Your task to perform on an android device: Open the web browser Image 0: 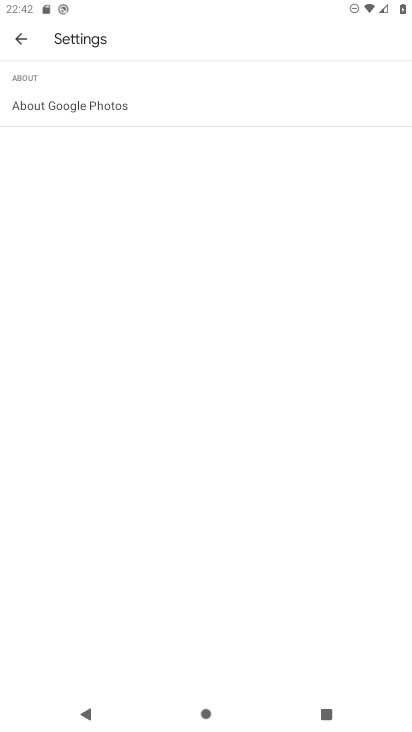
Step 0: press home button
Your task to perform on an android device: Open the web browser Image 1: 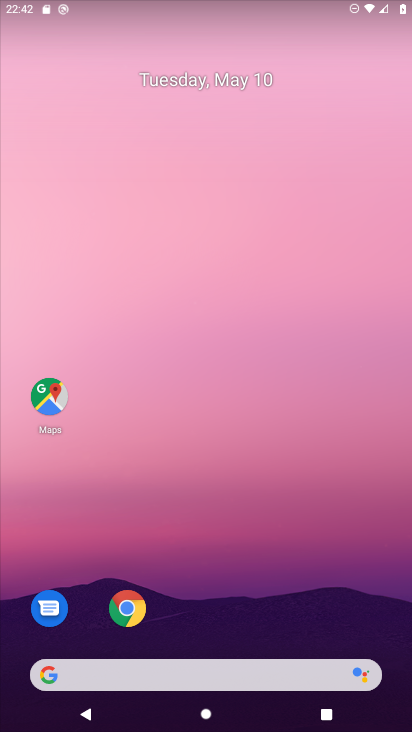
Step 1: drag from (228, 594) to (261, 249)
Your task to perform on an android device: Open the web browser Image 2: 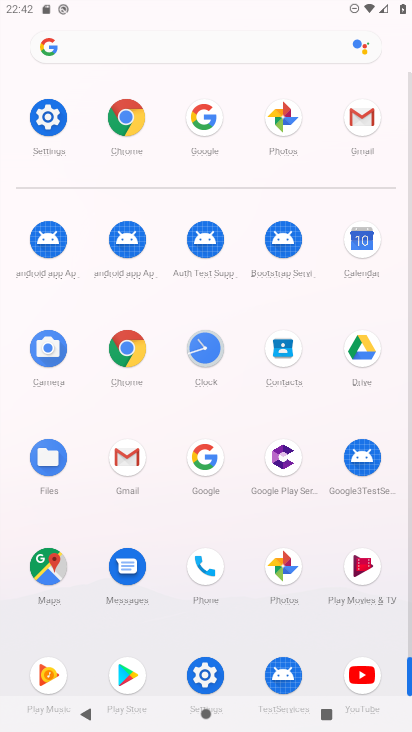
Step 2: click (116, 368)
Your task to perform on an android device: Open the web browser Image 3: 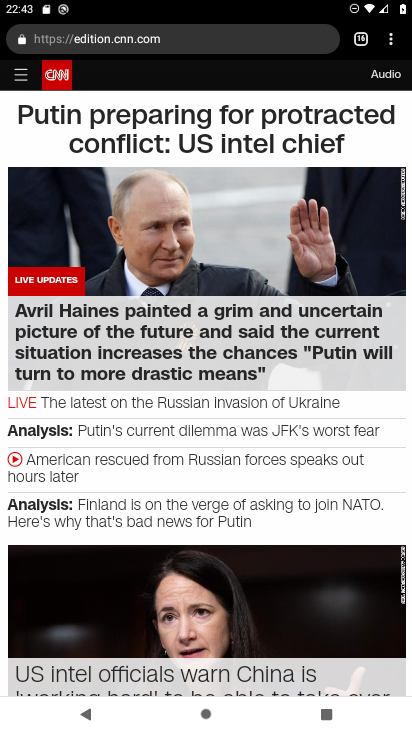
Step 3: task complete